Your task to perform on an android device: turn on bluetooth scan Image 0: 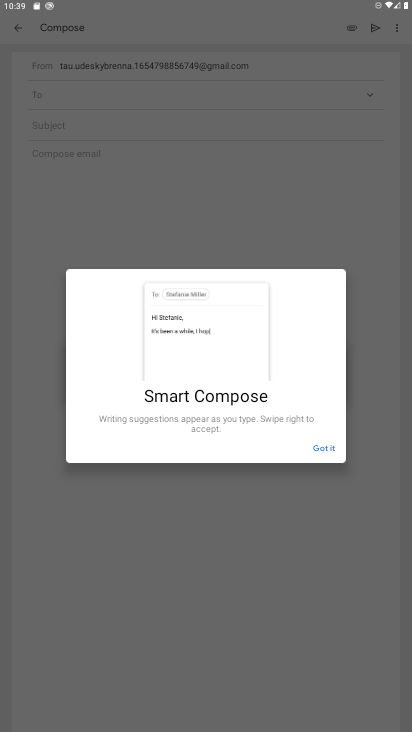
Step 0: drag from (316, 3) to (283, 713)
Your task to perform on an android device: turn on bluetooth scan Image 1: 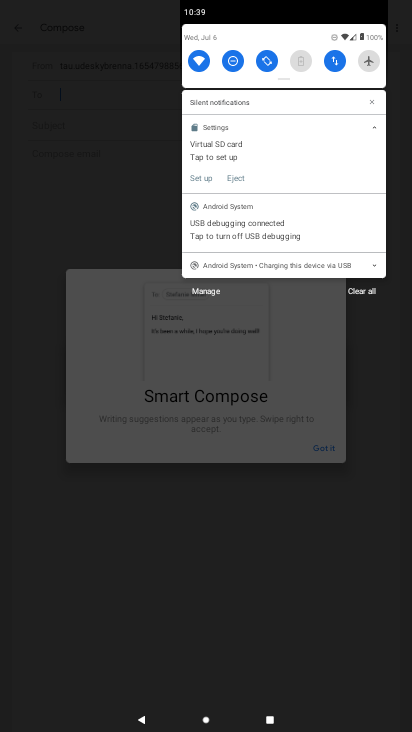
Step 1: drag from (283, 33) to (314, 604)
Your task to perform on an android device: turn on bluetooth scan Image 2: 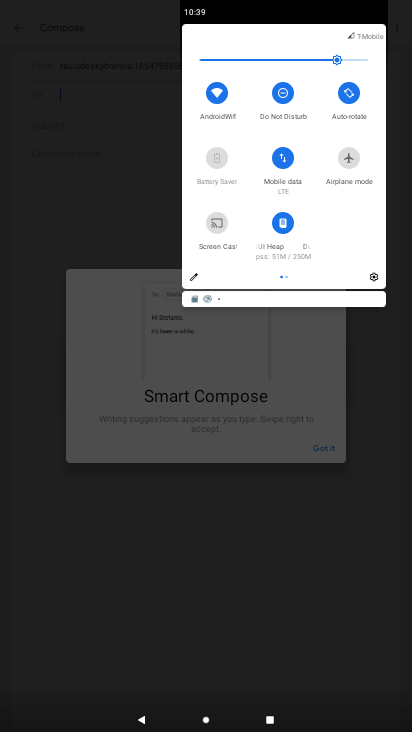
Step 2: click (373, 277)
Your task to perform on an android device: turn on bluetooth scan Image 3: 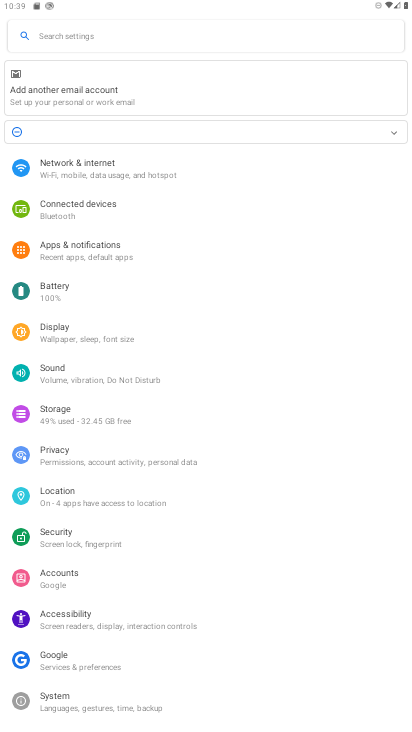
Step 3: click (91, 486)
Your task to perform on an android device: turn on bluetooth scan Image 4: 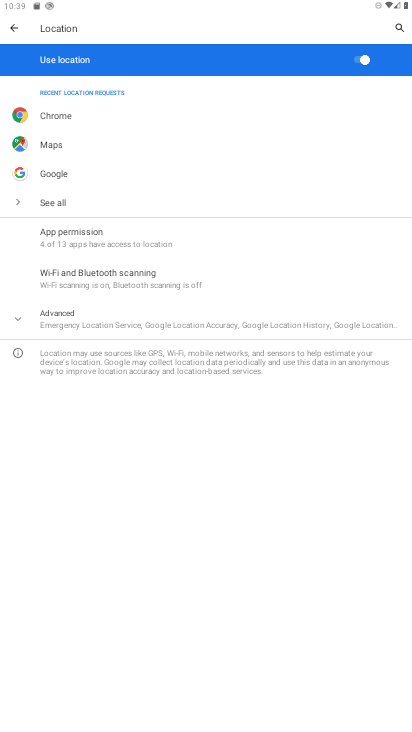
Step 4: click (145, 283)
Your task to perform on an android device: turn on bluetooth scan Image 5: 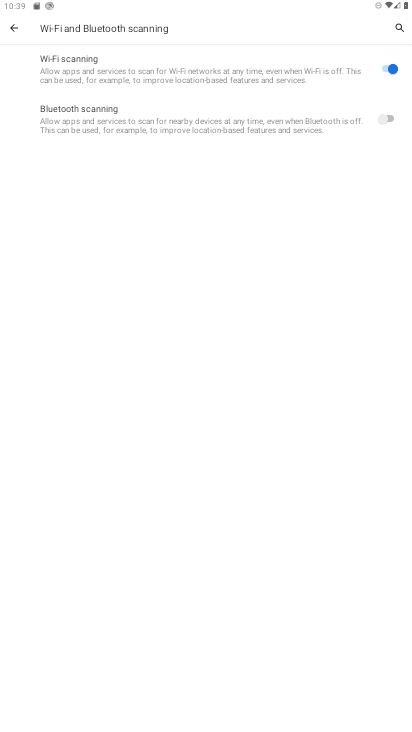
Step 5: click (385, 119)
Your task to perform on an android device: turn on bluetooth scan Image 6: 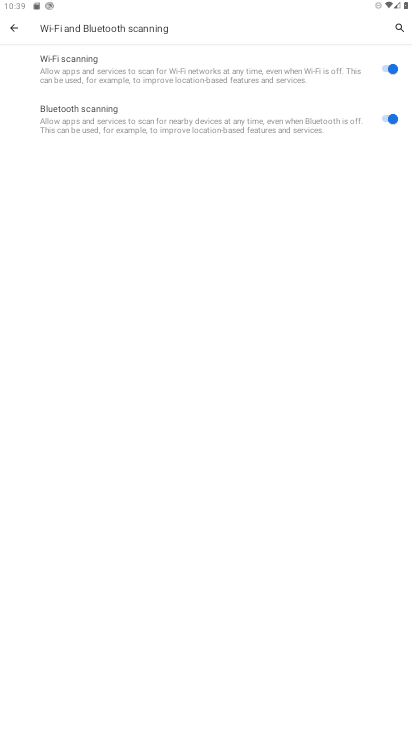
Step 6: task complete